Your task to perform on an android device: check google app version Image 0: 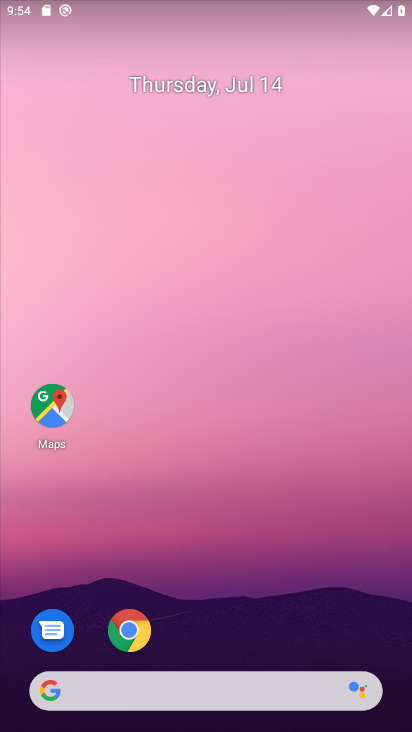
Step 0: drag from (248, 543) to (317, 18)
Your task to perform on an android device: check google app version Image 1: 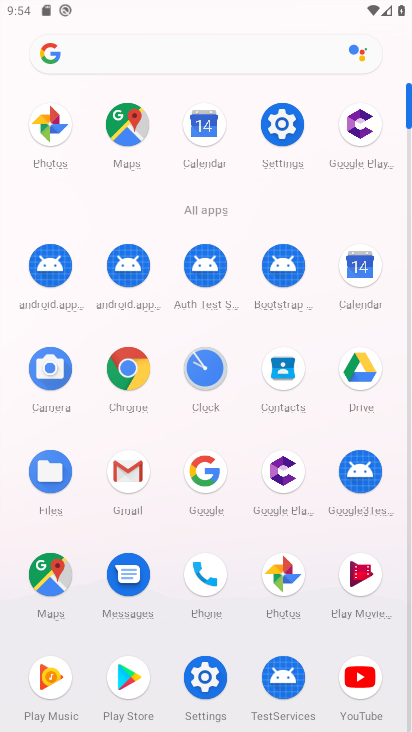
Step 1: click (203, 669)
Your task to perform on an android device: check google app version Image 2: 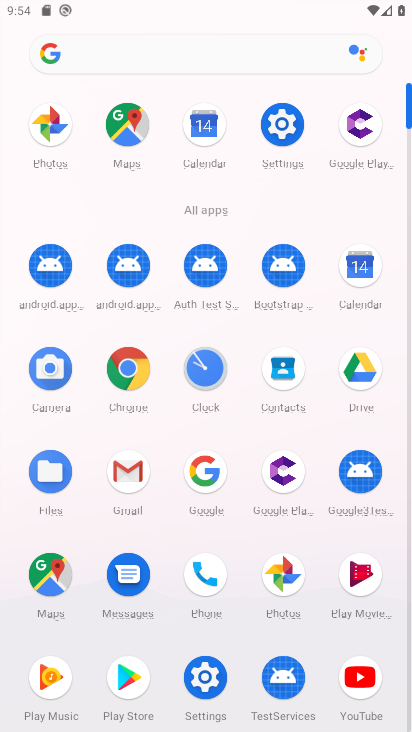
Step 2: click (203, 669)
Your task to perform on an android device: check google app version Image 3: 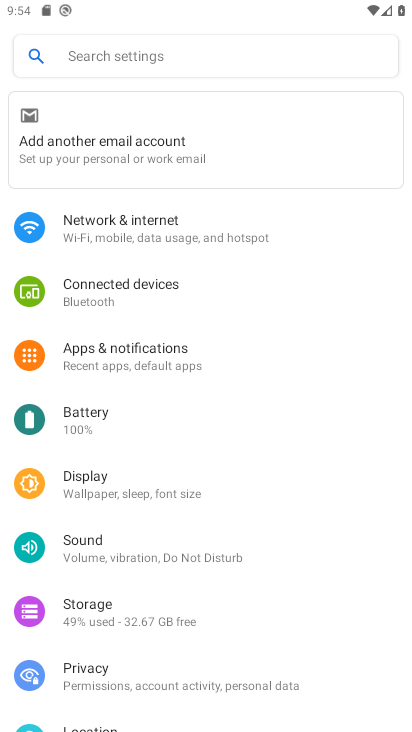
Step 3: drag from (240, 562) to (310, 201)
Your task to perform on an android device: check google app version Image 4: 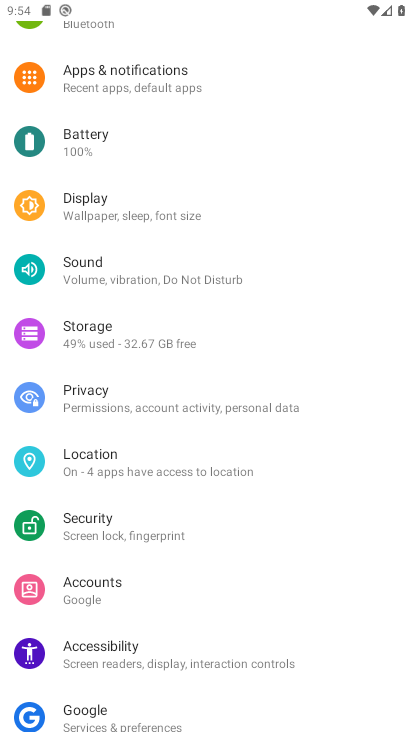
Step 4: drag from (213, 634) to (271, 257)
Your task to perform on an android device: check google app version Image 5: 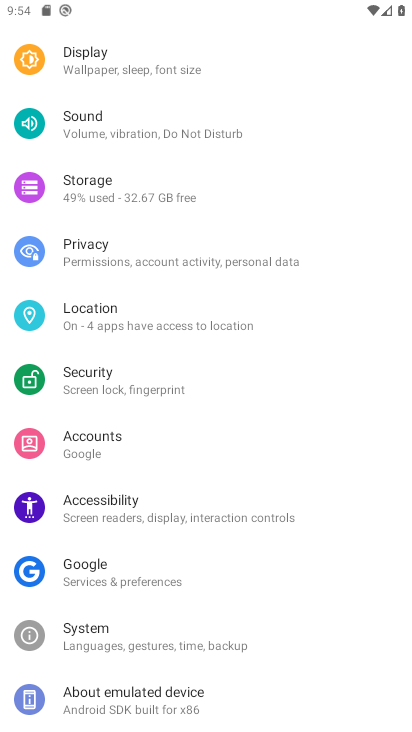
Step 5: click (165, 701)
Your task to perform on an android device: check google app version Image 6: 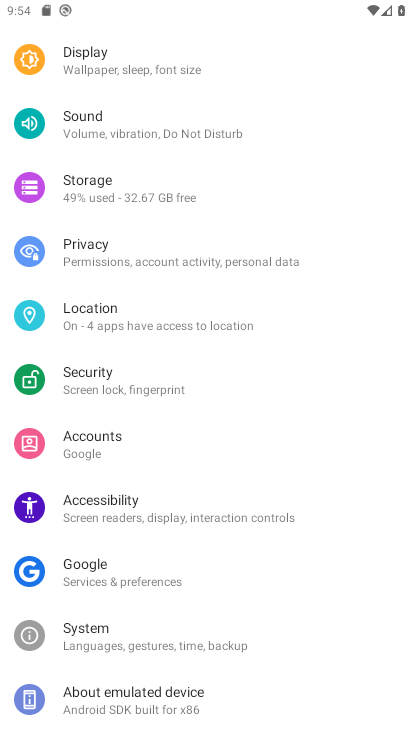
Step 6: click (167, 699)
Your task to perform on an android device: check google app version Image 7: 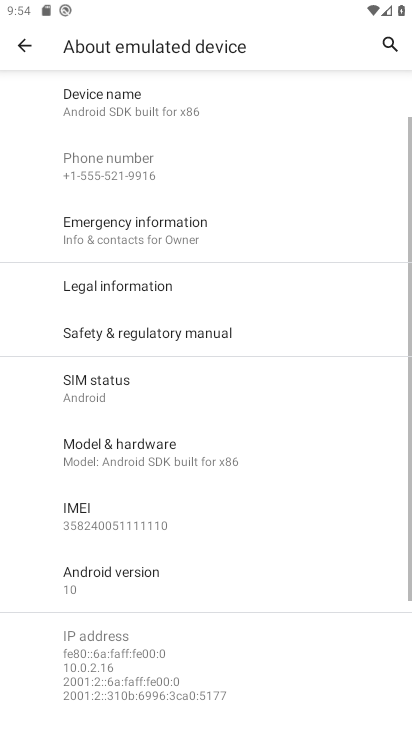
Step 7: drag from (195, 662) to (278, 307)
Your task to perform on an android device: check google app version Image 8: 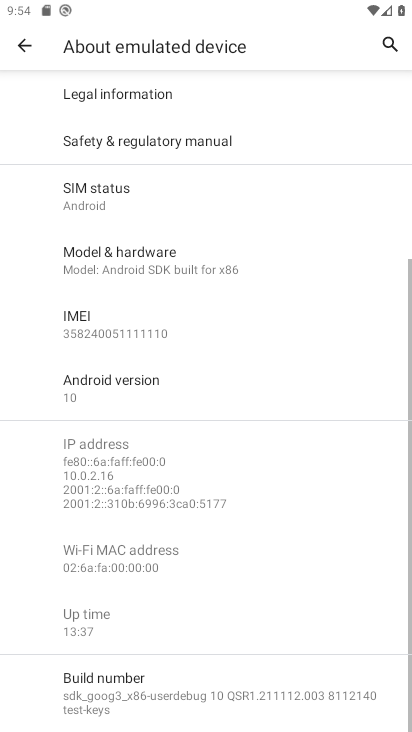
Step 8: click (163, 394)
Your task to perform on an android device: check google app version Image 9: 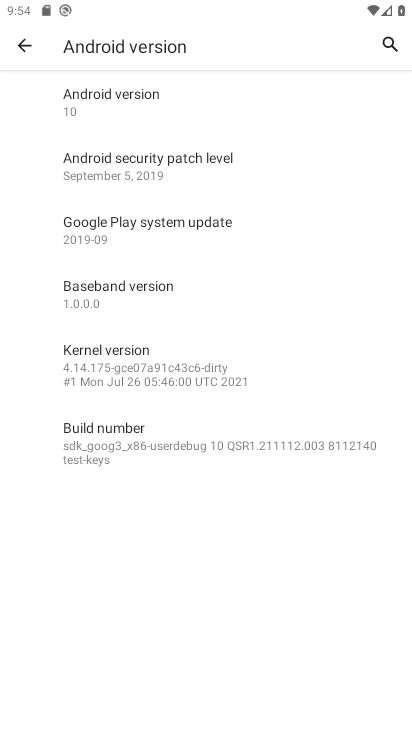
Step 9: drag from (221, 428) to (244, 293)
Your task to perform on an android device: check google app version Image 10: 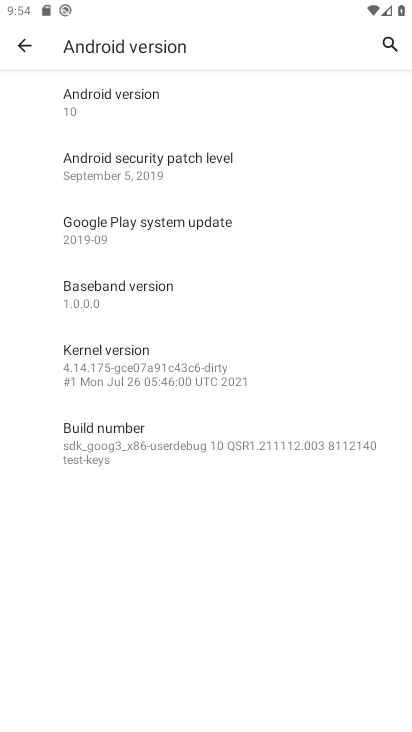
Step 10: click (230, 103)
Your task to perform on an android device: check google app version Image 11: 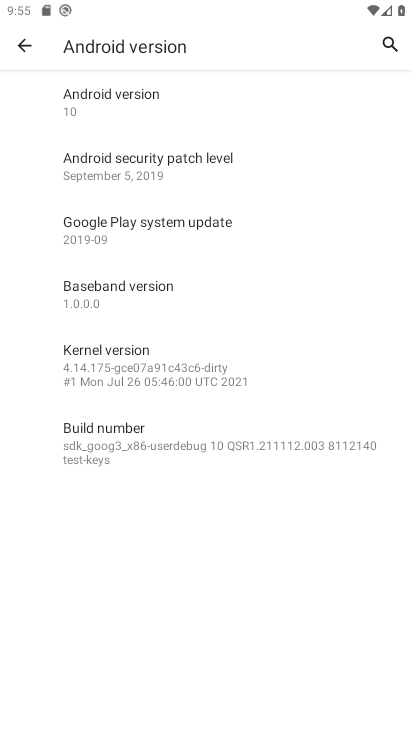
Step 11: task complete